Your task to perform on an android device: turn on wifi Image 0: 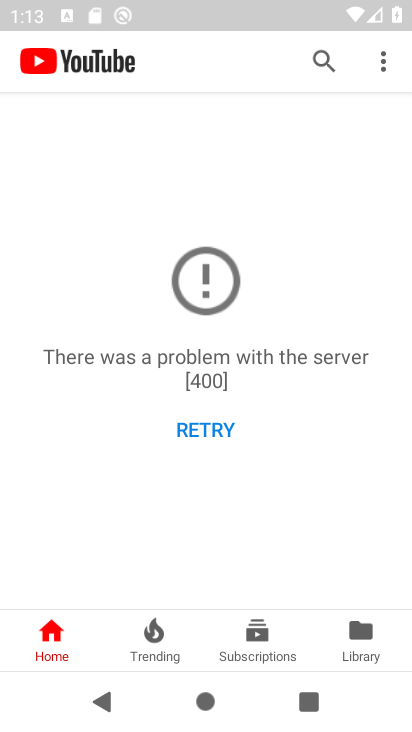
Step 0: press home button
Your task to perform on an android device: turn on wifi Image 1: 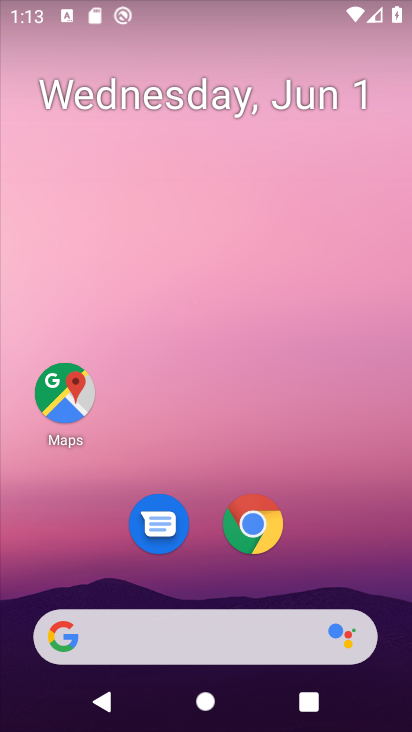
Step 1: drag from (319, 517) to (321, 59)
Your task to perform on an android device: turn on wifi Image 2: 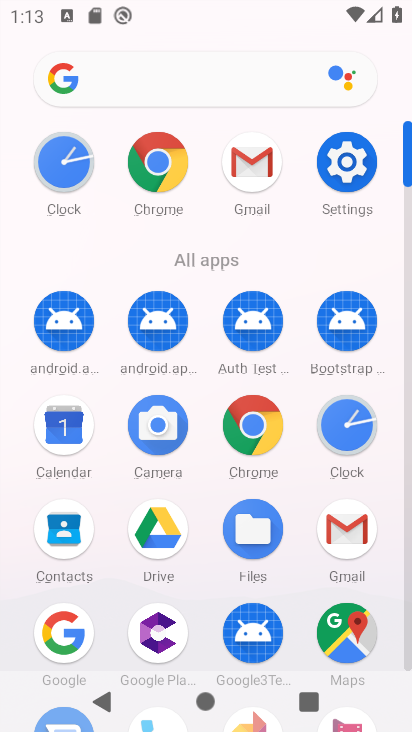
Step 2: click (344, 165)
Your task to perform on an android device: turn on wifi Image 3: 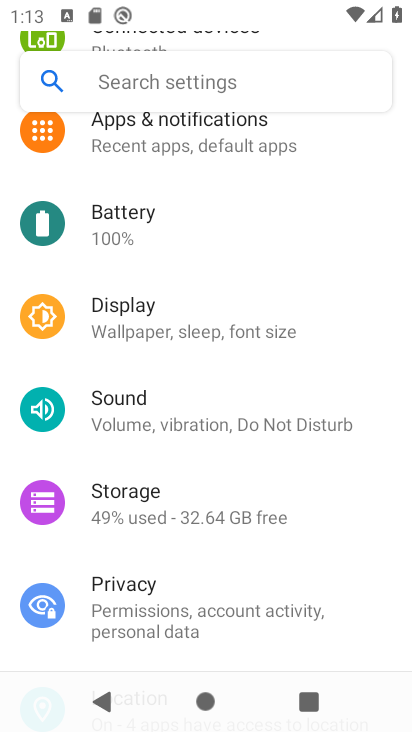
Step 3: drag from (264, 246) to (280, 574)
Your task to perform on an android device: turn on wifi Image 4: 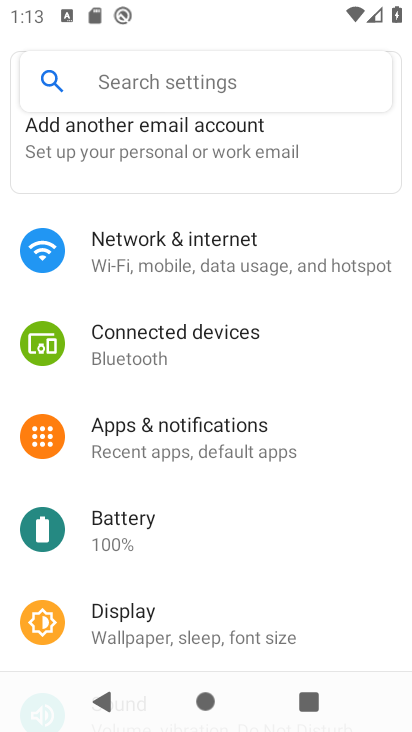
Step 4: click (251, 251)
Your task to perform on an android device: turn on wifi Image 5: 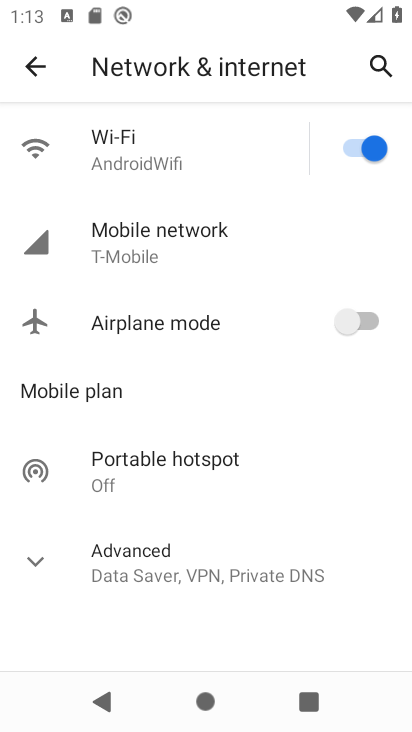
Step 5: task complete